Your task to perform on an android device: Show me productivity apps on the Play Store Image 0: 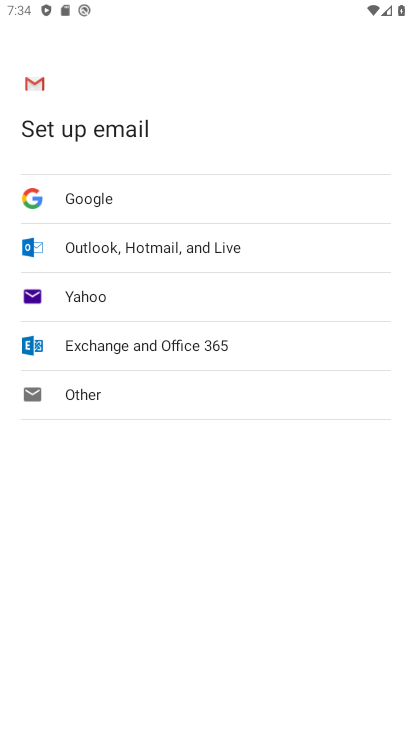
Step 0: press home button
Your task to perform on an android device: Show me productivity apps on the Play Store Image 1: 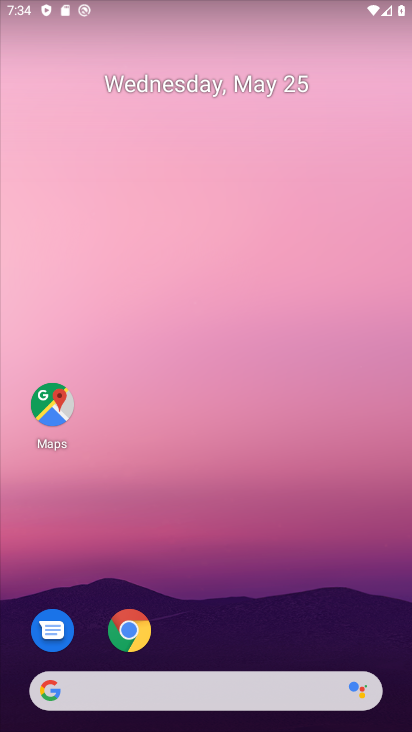
Step 1: drag from (187, 674) to (203, 230)
Your task to perform on an android device: Show me productivity apps on the Play Store Image 2: 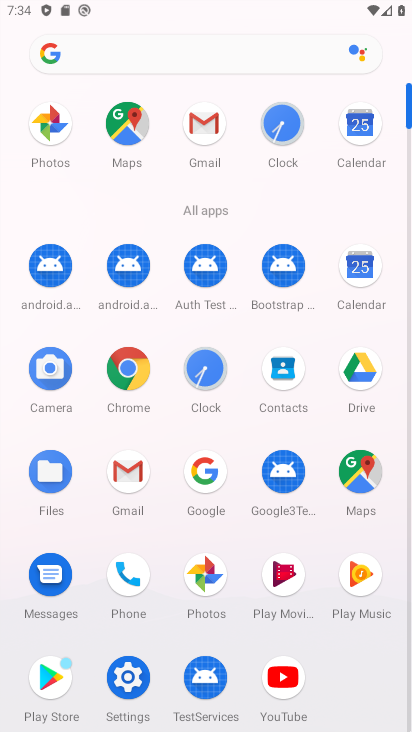
Step 2: click (52, 680)
Your task to perform on an android device: Show me productivity apps on the Play Store Image 3: 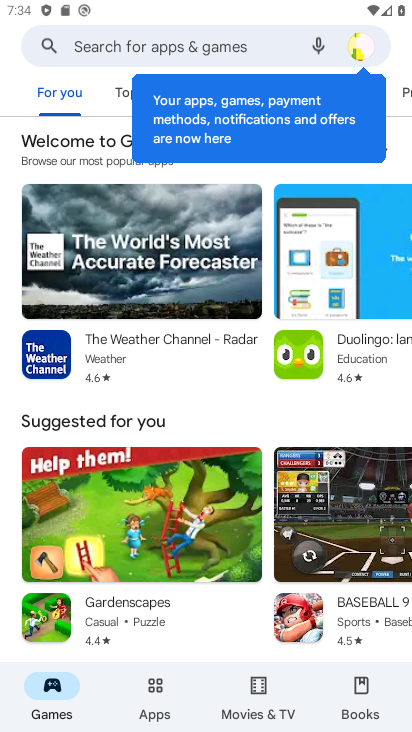
Step 3: drag from (236, 624) to (338, 139)
Your task to perform on an android device: Show me productivity apps on the Play Store Image 4: 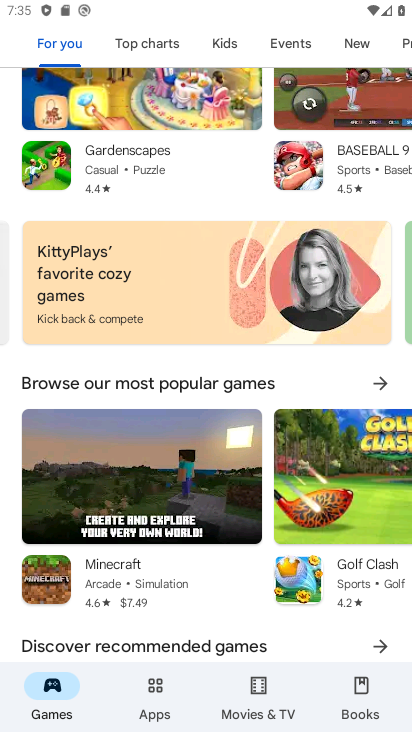
Step 4: drag from (240, 527) to (253, 181)
Your task to perform on an android device: Show me productivity apps on the Play Store Image 5: 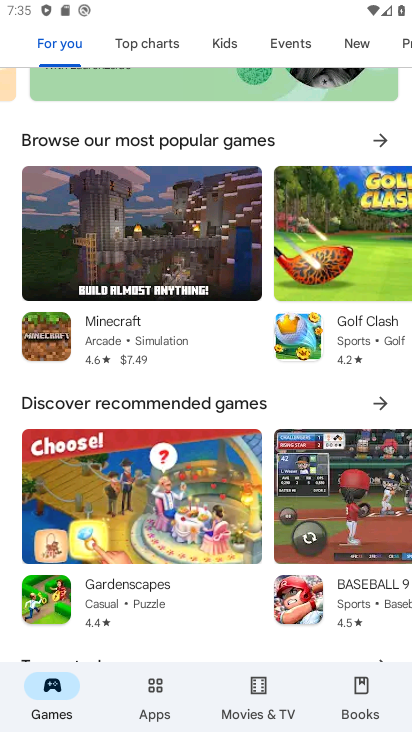
Step 5: click (164, 693)
Your task to perform on an android device: Show me productivity apps on the Play Store Image 6: 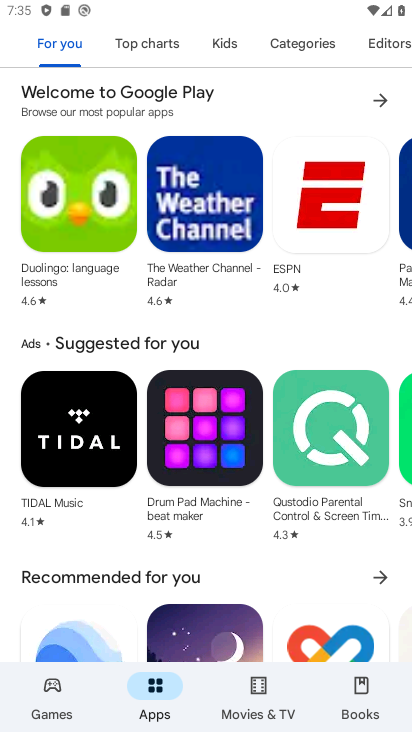
Step 6: task complete